Your task to perform on an android device: Open Amazon Image 0: 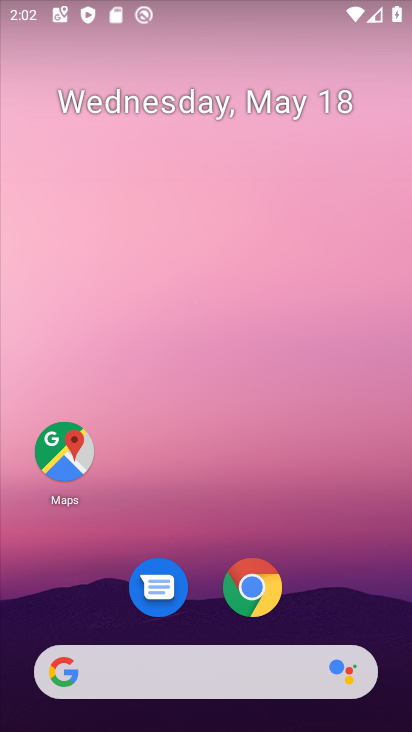
Step 0: click (255, 591)
Your task to perform on an android device: Open Amazon Image 1: 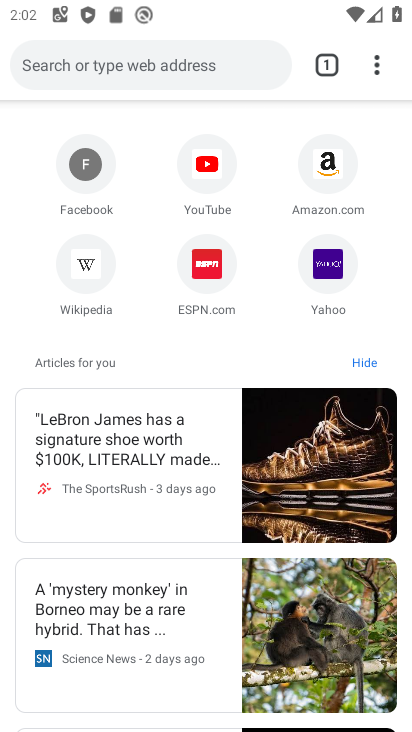
Step 1: click (323, 173)
Your task to perform on an android device: Open Amazon Image 2: 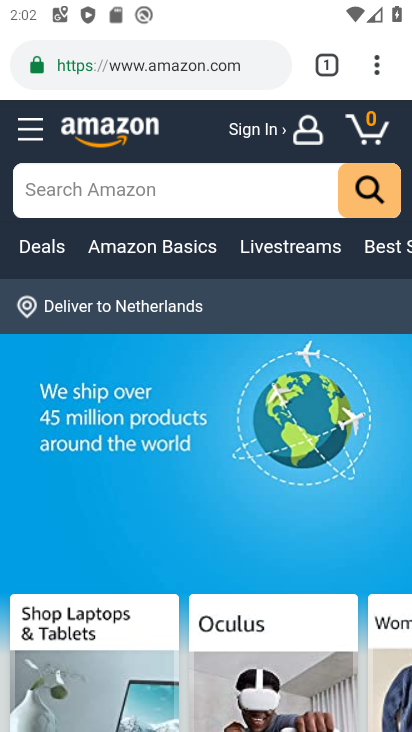
Step 2: task complete